Your task to perform on an android device: Go to location settings Image 0: 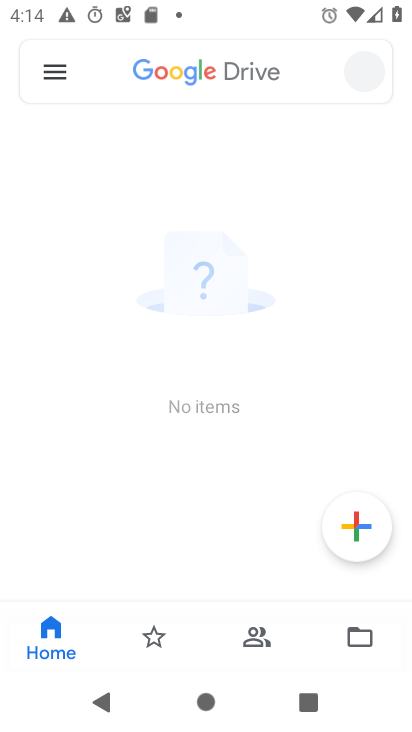
Step 0: drag from (337, 560) to (377, 117)
Your task to perform on an android device: Go to location settings Image 1: 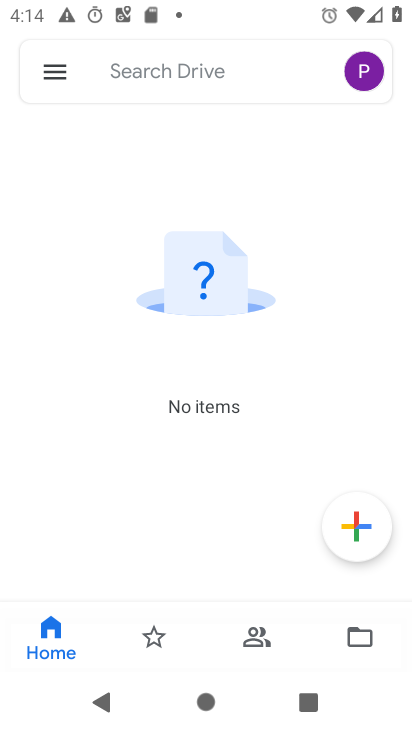
Step 1: press home button
Your task to perform on an android device: Go to location settings Image 2: 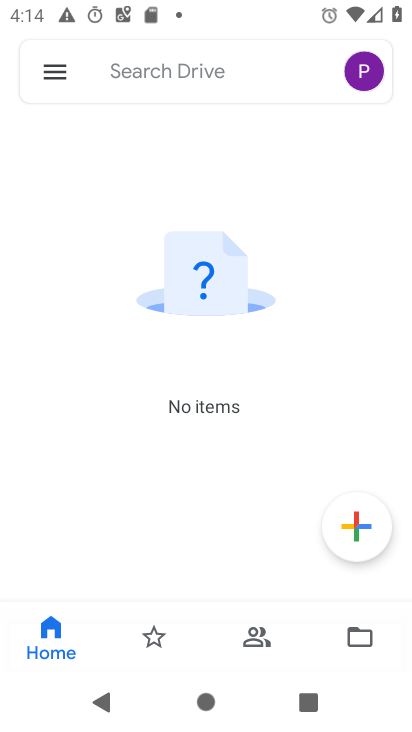
Step 2: press home button
Your task to perform on an android device: Go to location settings Image 3: 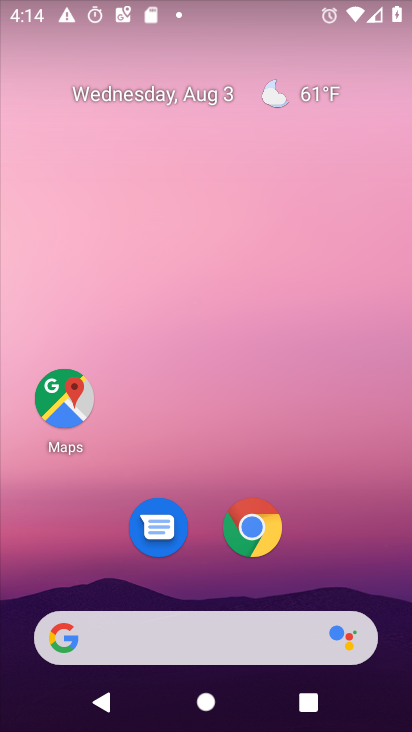
Step 3: drag from (347, 529) to (346, 89)
Your task to perform on an android device: Go to location settings Image 4: 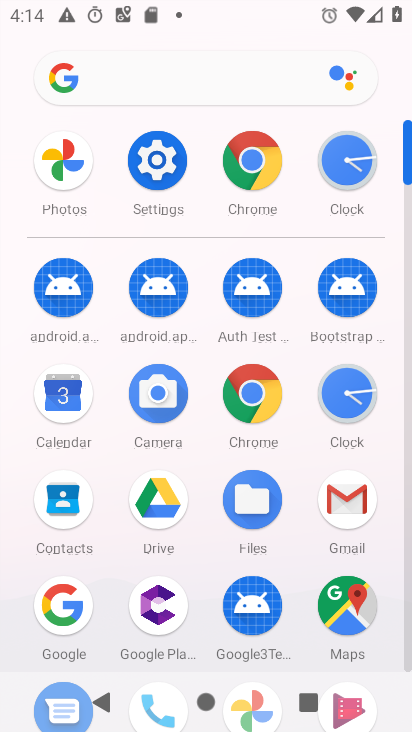
Step 4: click (166, 156)
Your task to perform on an android device: Go to location settings Image 5: 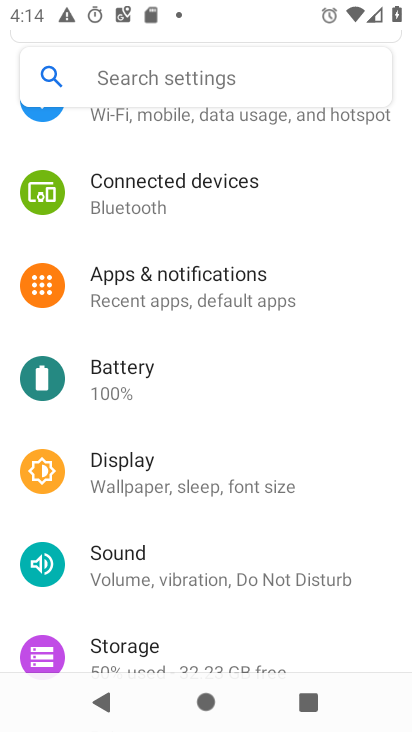
Step 5: drag from (246, 575) to (319, 153)
Your task to perform on an android device: Go to location settings Image 6: 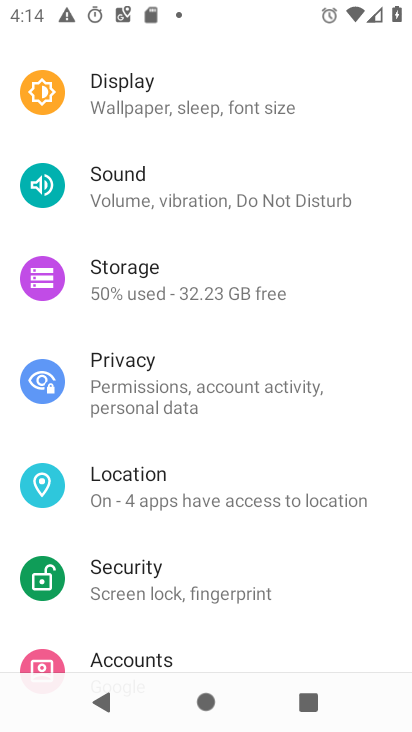
Step 6: click (155, 472)
Your task to perform on an android device: Go to location settings Image 7: 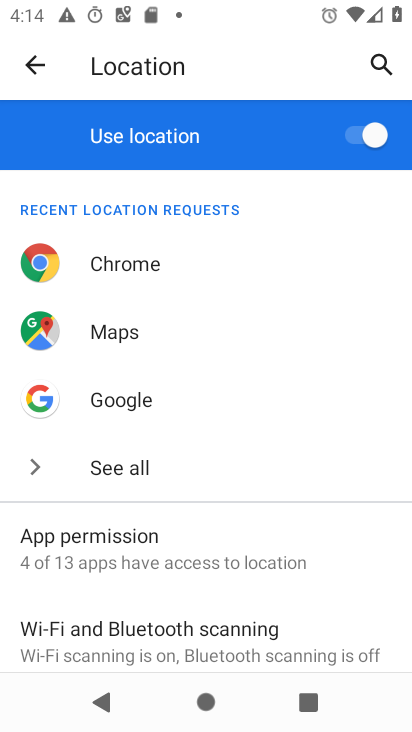
Step 7: task complete